Your task to perform on an android device: clear history in the chrome app Image 0: 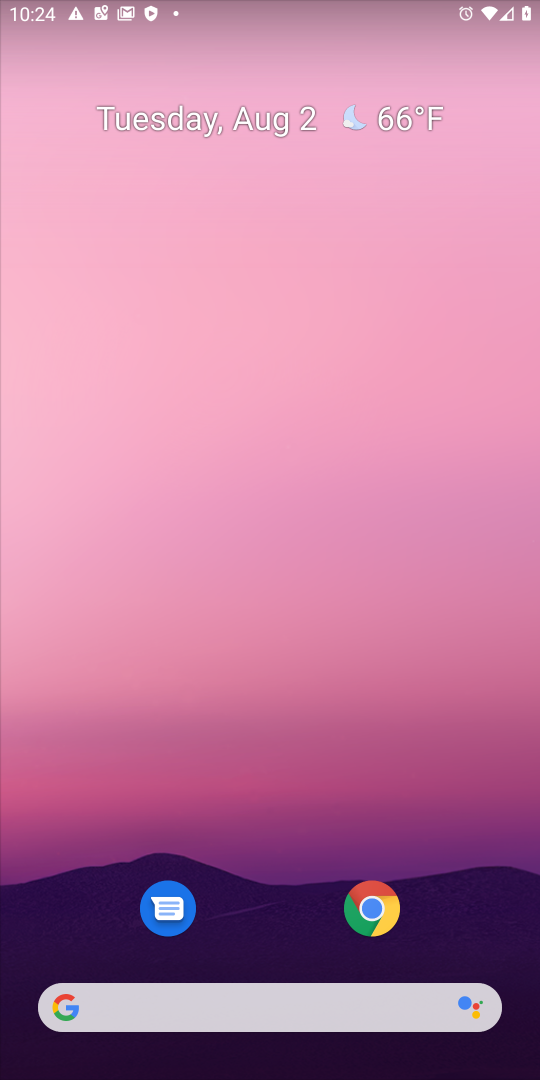
Step 0: drag from (327, 829) to (514, 623)
Your task to perform on an android device: clear history in the chrome app Image 1: 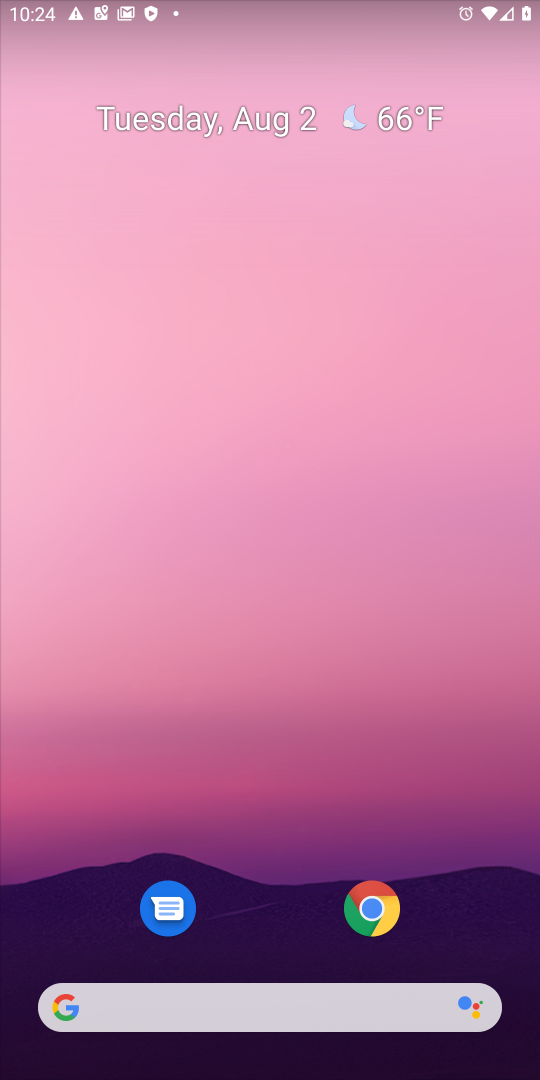
Step 1: drag from (267, 798) to (192, 116)
Your task to perform on an android device: clear history in the chrome app Image 2: 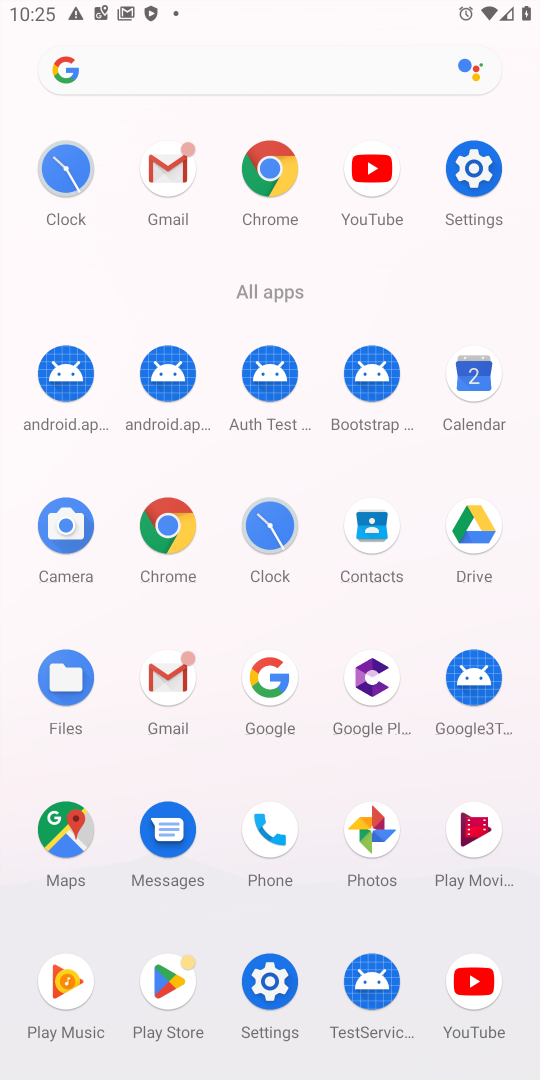
Step 2: click (172, 546)
Your task to perform on an android device: clear history in the chrome app Image 3: 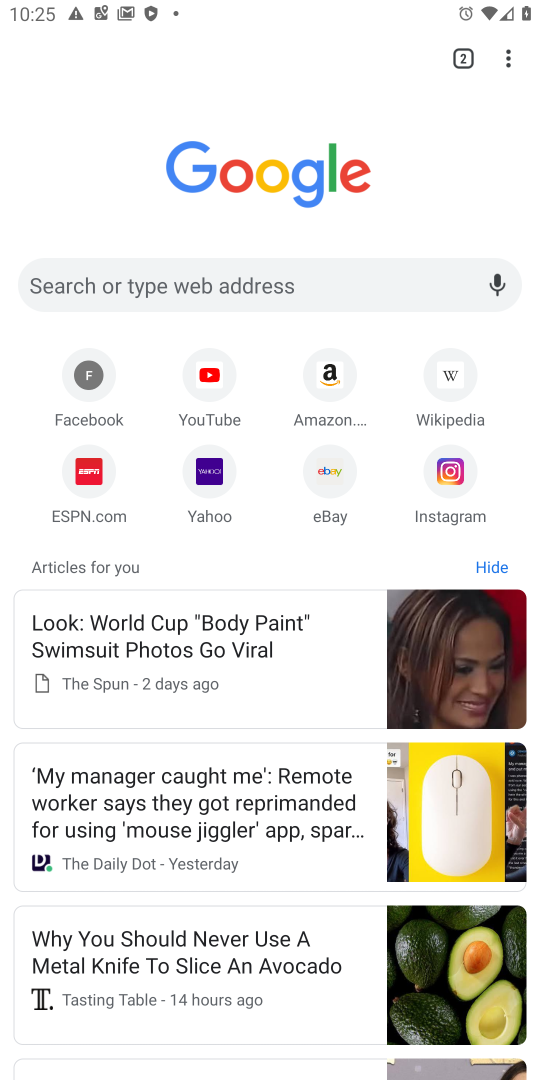
Step 3: click (510, 64)
Your task to perform on an android device: clear history in the chrome app Image 4: 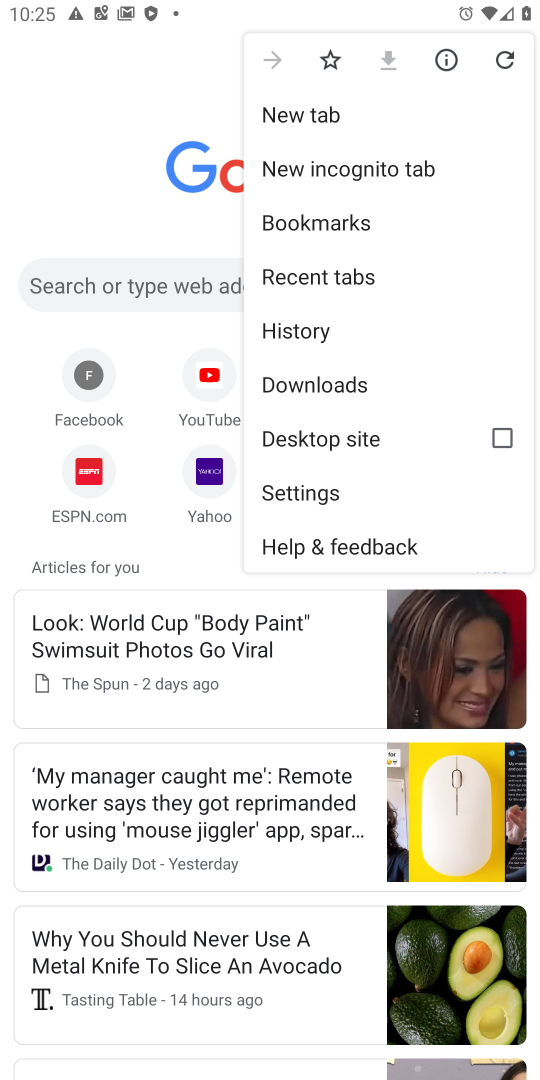
Step 4: click (364, 337)
Your task to perform on an android device: clear history in the chrome app Image 5: 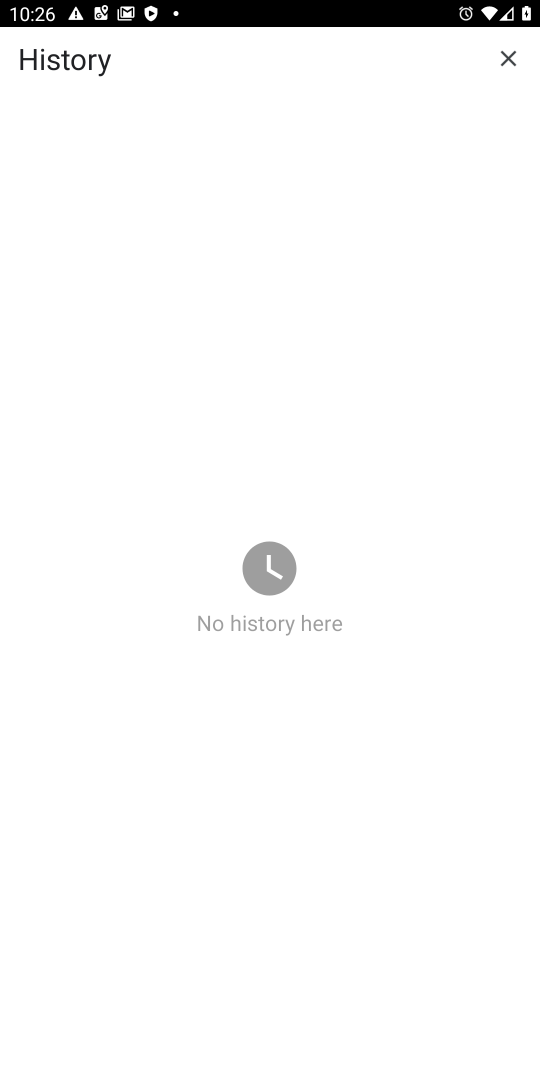
Step 5: task complete